Your task to perform on an android device: turn off picture-in-picture Image 0: 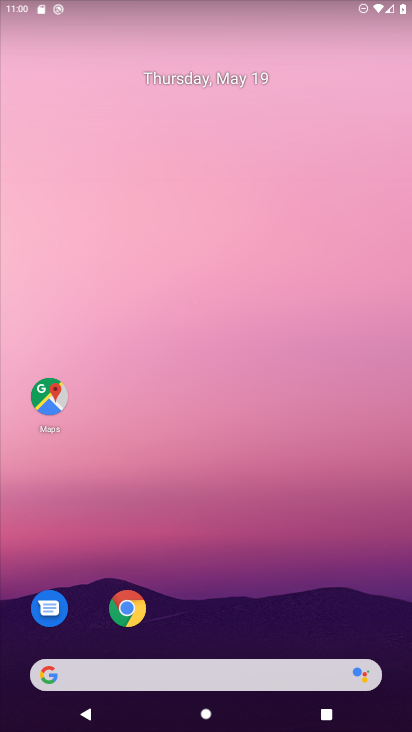
Step 0: drag from (395, 690) to (323, 87)
Your task to perform on an android device: turn off picture-in-picture Image 1: 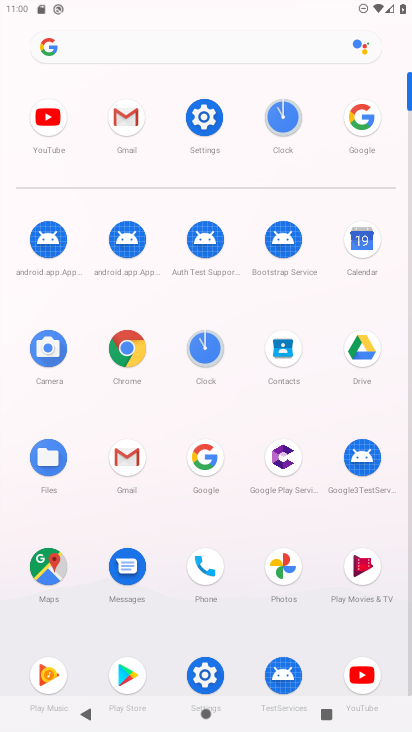
Step 1: click (133, 345)
Your task to perform on an android device: turn off picture-in-picture Image 2: 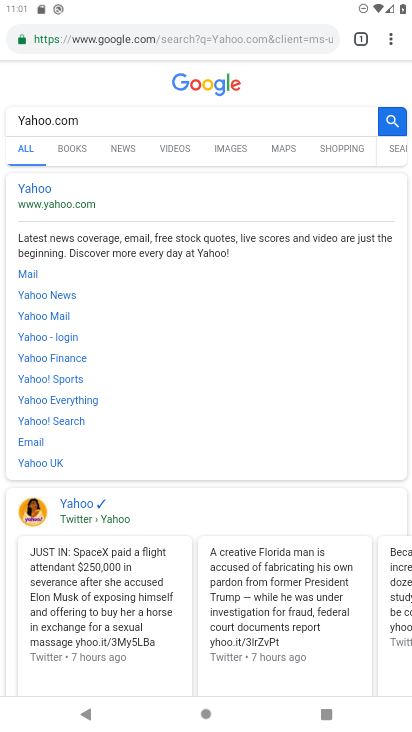
Step 2: press home button
Your task to perform on an android device: turn off picture-in-picture Image 3: 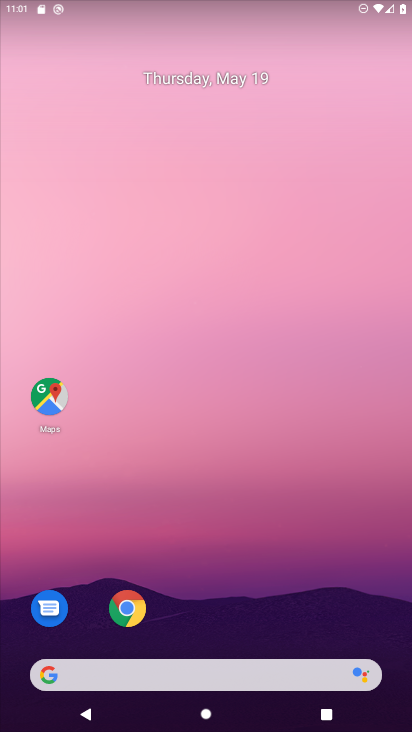
Step 3: click (129, 607)
Your task to perform on an android device: turn off picture-in-picture Image 4: 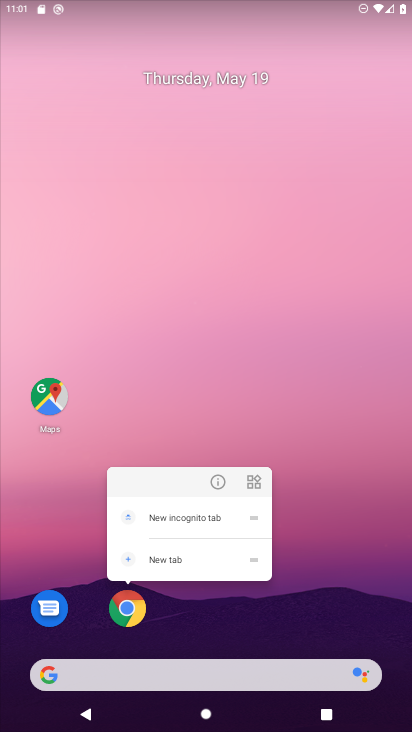
Step 4: click (218, 477)
Your task to perform on an android device: turn off picture-in-picture Image 5: 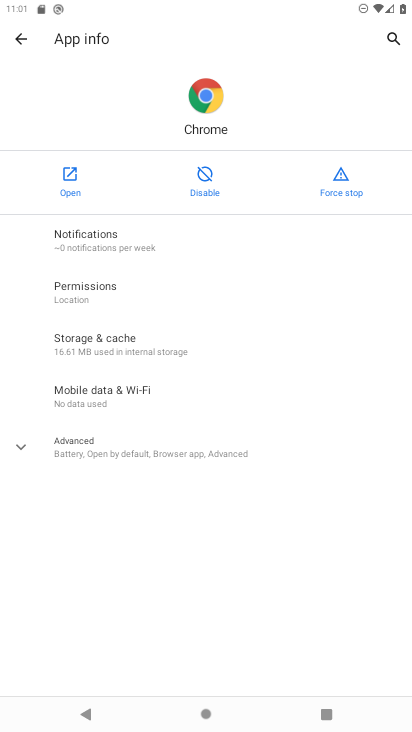
Step 5: click (14, 443)
Your task to perform on an android device: turn off picture-in-picture Image 6: 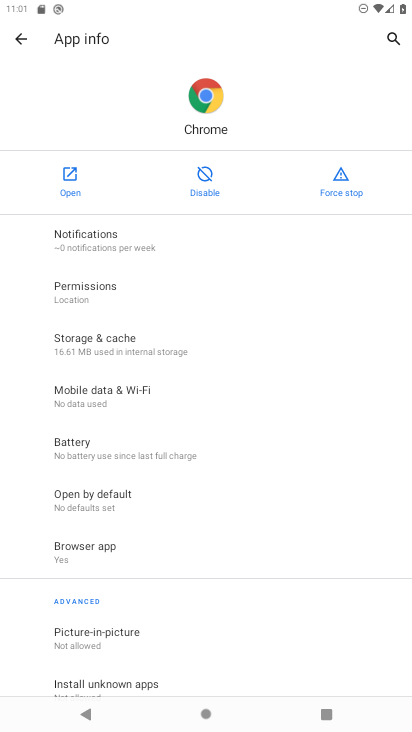
Step 6: click (86, 639)
Your task to perform on an android device: turn off picture-in-picture Image 7: 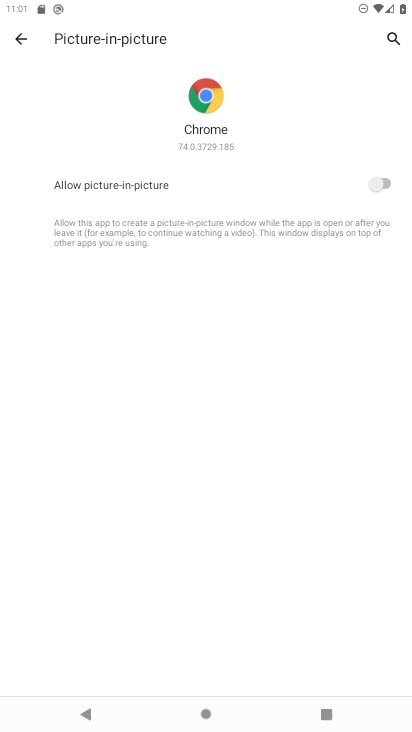
Step 7: click (388, 178)
Your task to perform on an android device: turn off picture-in-picture Image 8: 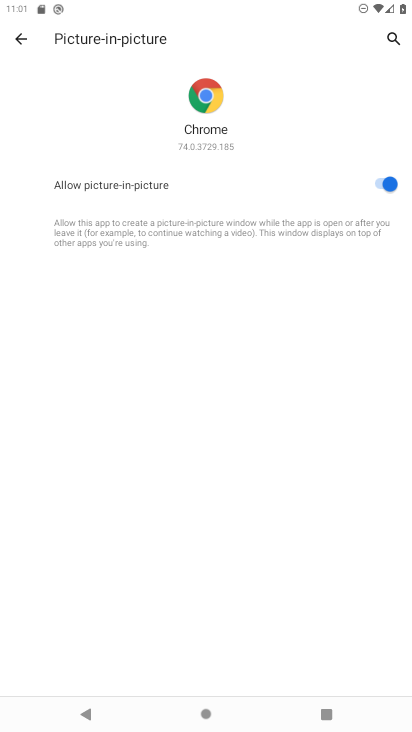
Step 8: click (371, 183)
Your task to perform on an android device: turn off picture-in-picture Image 9: 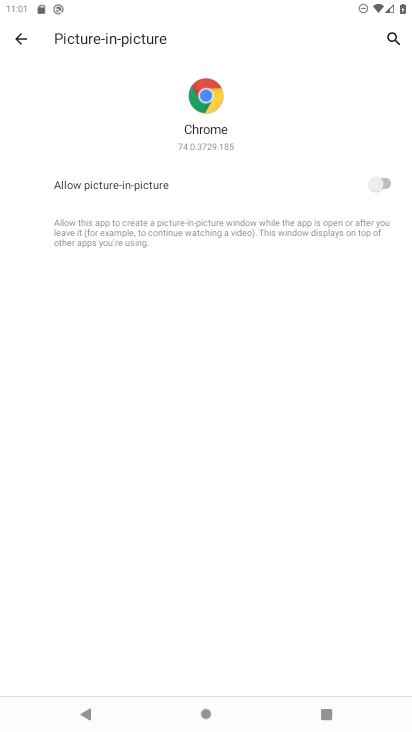
Step 9: task complete